Your task to perform on an android device: Go to ESPN.com Image 0: 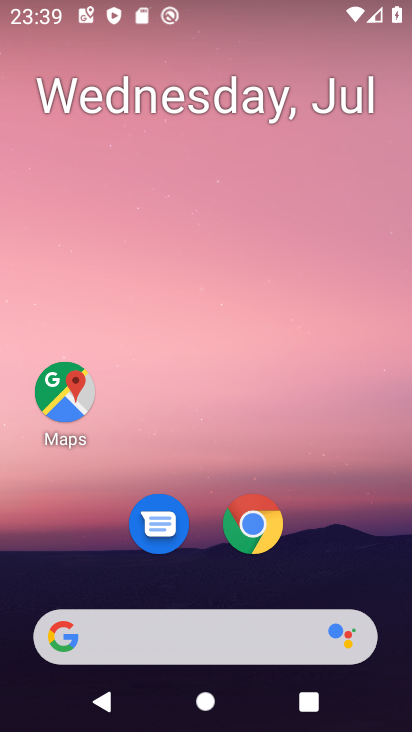
Step 0: click (254, 532)
Your task to perform on an android device: Go to ESPN.com Image 1: 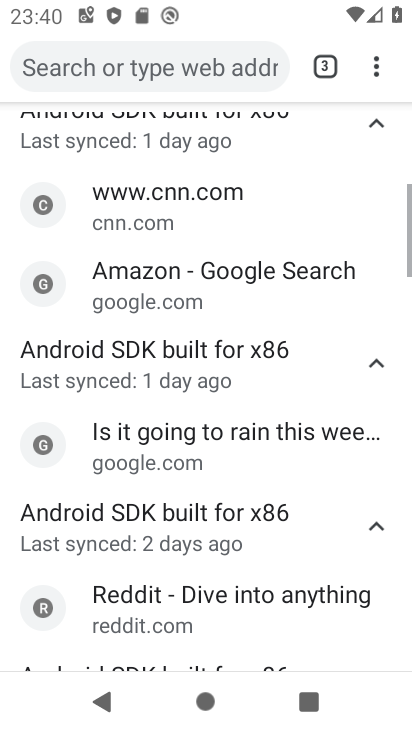
Step 1: drag from (376, 62) to (260, 140)
Your task to perform on an android device: Go to ESPN.com Image 2: 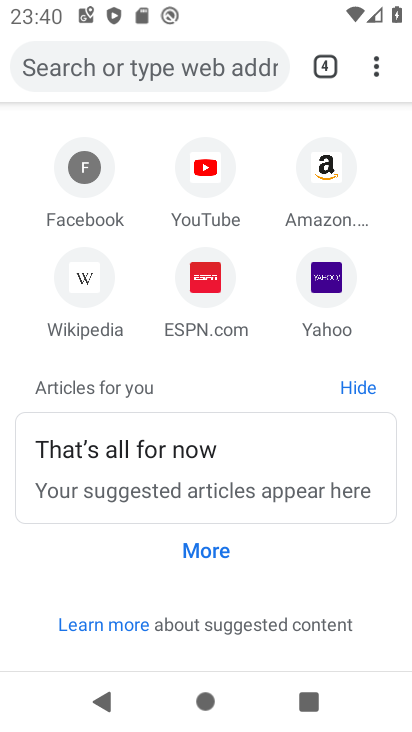
Step 2: click (203, 279)
Your task to perform on an android device: Go to ESPN.com Image 3: 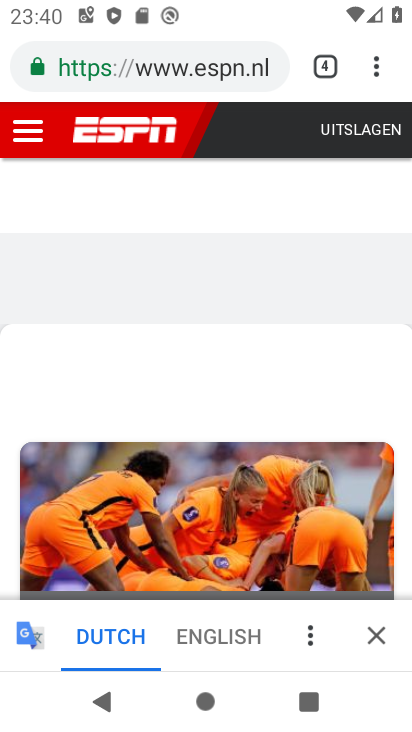
Step 3: click (219, 636)
Your task to perform on an android device: Go to ESPN.com Image 4: 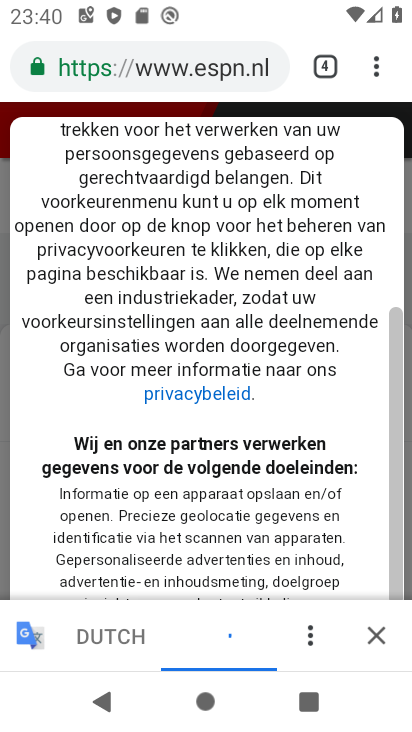
Step 4: drag from (251, 527) to (357, 87)
Your task to perform on an android device: Go to ESPN.com Image 5: 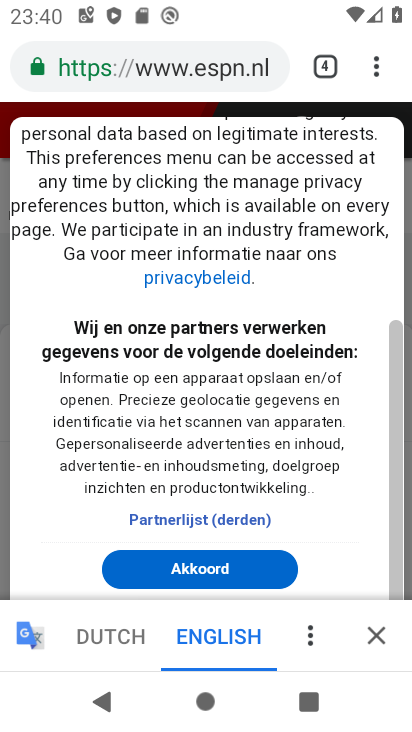
Step 5: click (223, 562)
Your task to perform on an android device: Go to ESPN.com Image 6: 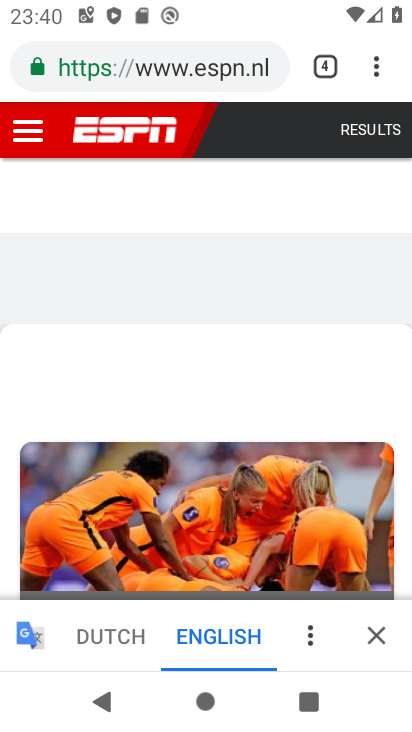
Step 6: task complete